Your task to perform on an android device: Open Wikipedia Image 0: 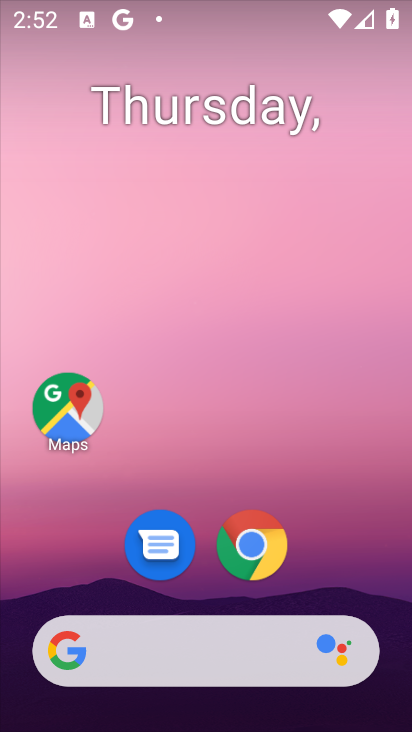
Step 0: click (164, 658)
Your task to perform on an android device: Open Wikipedia Image 1: 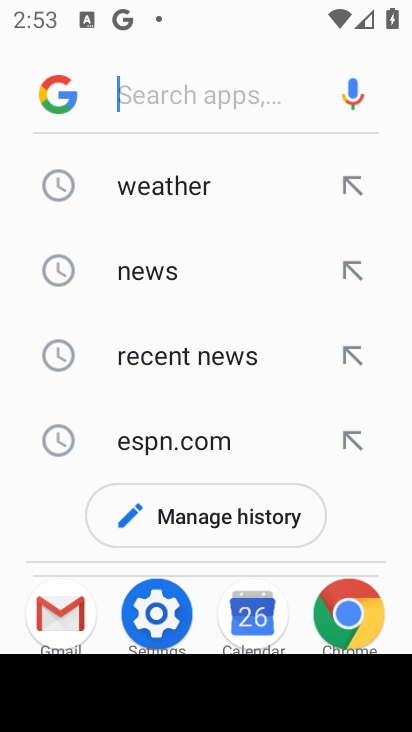
Step 1: type "wikipedia"
Your task to perform on an android device: Open Wikipedia Image 2: 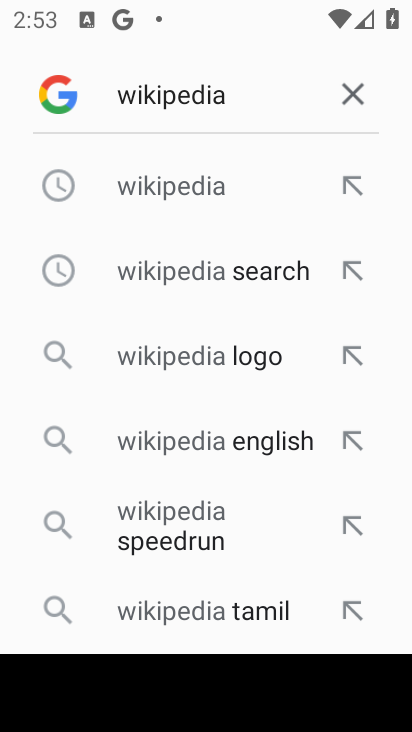
Step 2: click (192, 180)
Your task to perform on an android device: Open Wikipedia Image 3: 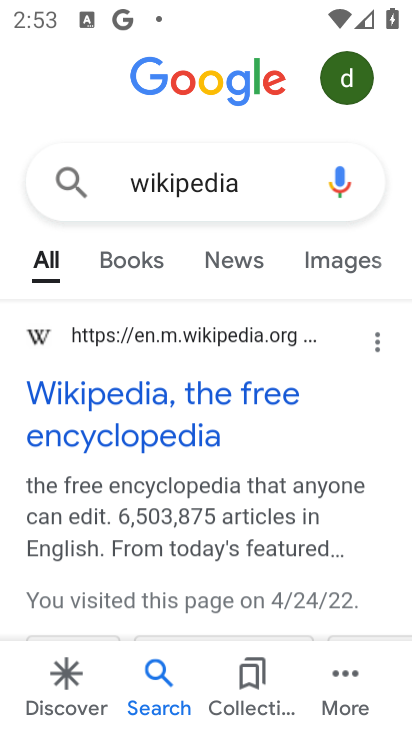
Step 3: click (147, 341)
Your task to perform on an android device: Open Wikipedia Image 4: 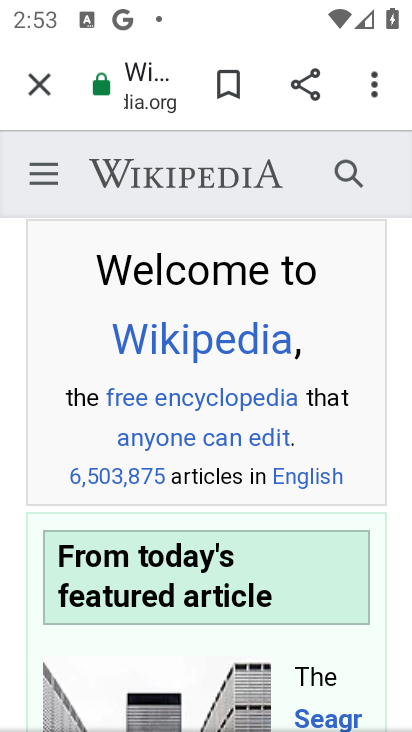
Step 4: task complete